Your task to perform on an android device: open app "Viber Messenger" (install if not already installed), go to login, and select forgot password Image 0: 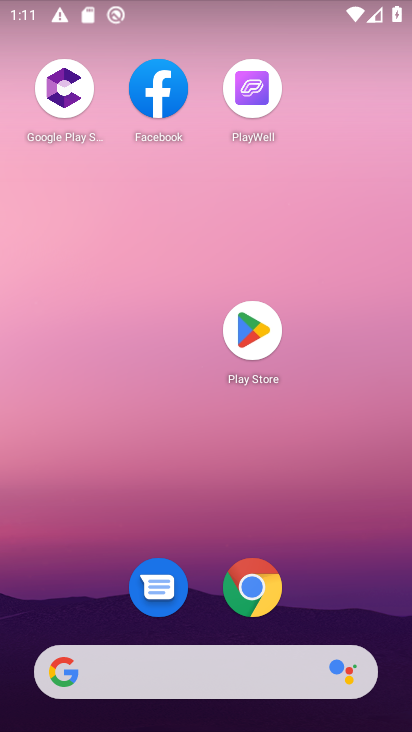
Step 0: press home button
Your task to perform on an android device: open app "Viber Messenger" (install if not already installed), go to login, and select forgot password Image 1: 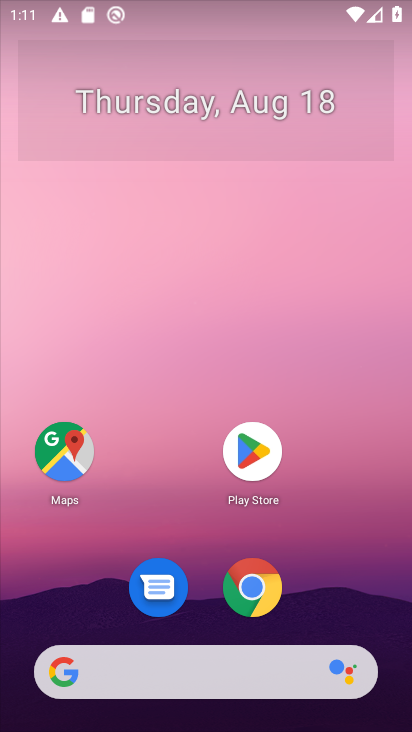
Step 1: click (238, 456)
Your task to perform on an android device: open app "Viber Messenger" (install if not already installed), go to login, and select forgot password Image 2: 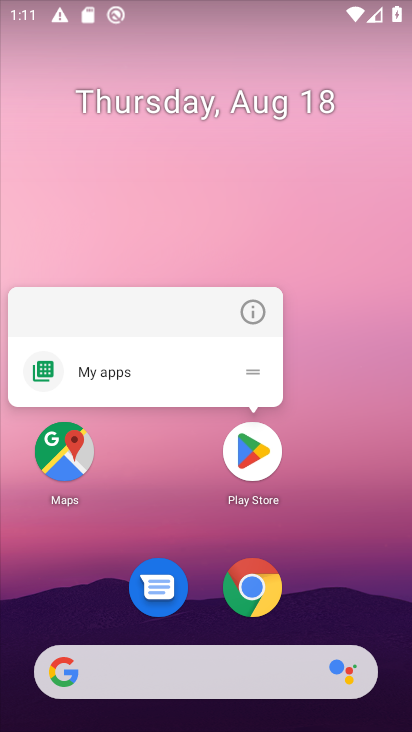
Step 2: click (253, 455)
Your task to perform on an android device: open app "Viber Messenger" (install if not already installed), go to login, and select forgot password Image 3: 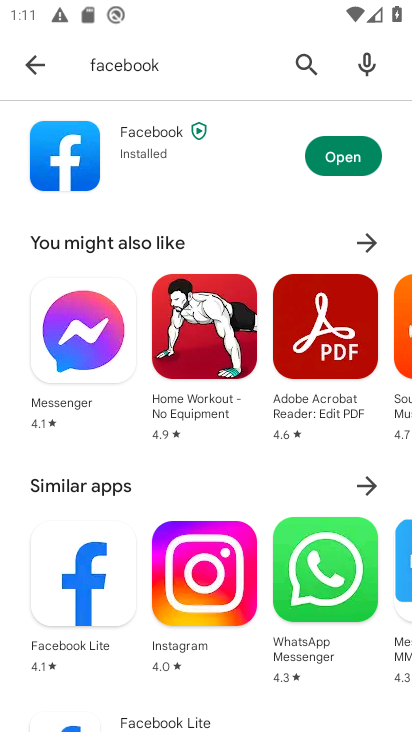
Step 3: click (295, 67)
Your task to perform on an android device: open app "Viber Messenger" (install if not already installed), go to login, and select forgot password Image 4: 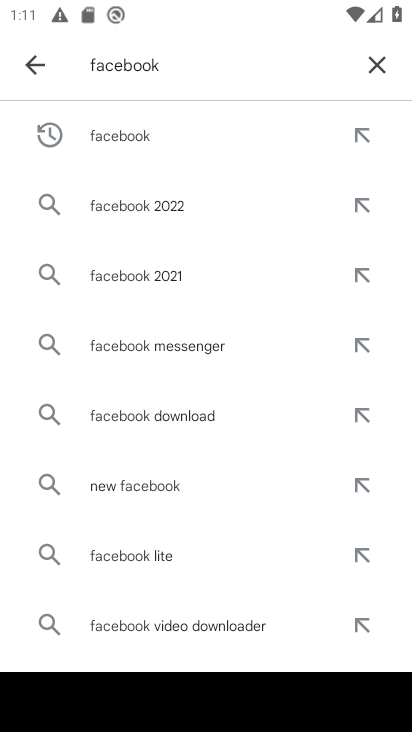
Step 4: click (377, 57)
Your task to perform on an android device: open app "Viber Messenger" (install if not already installed), go to login, and select forgot password Image 5: 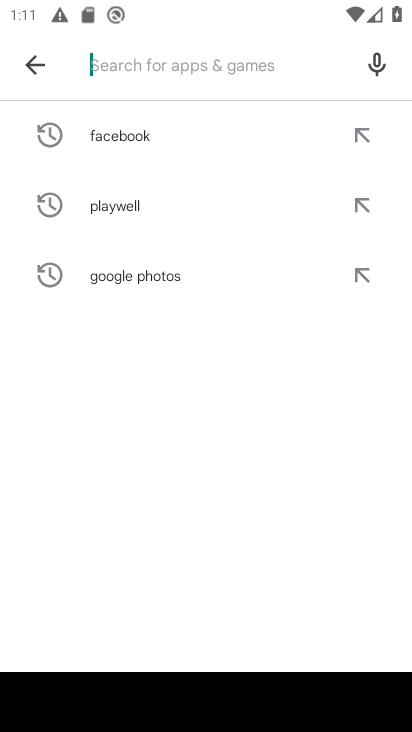
Step 5: type "Viber Messenger"
Your task to perform on an android device: open app "Viber Messenger" (install if not already installed), go to login, and select forgot password Image 6: 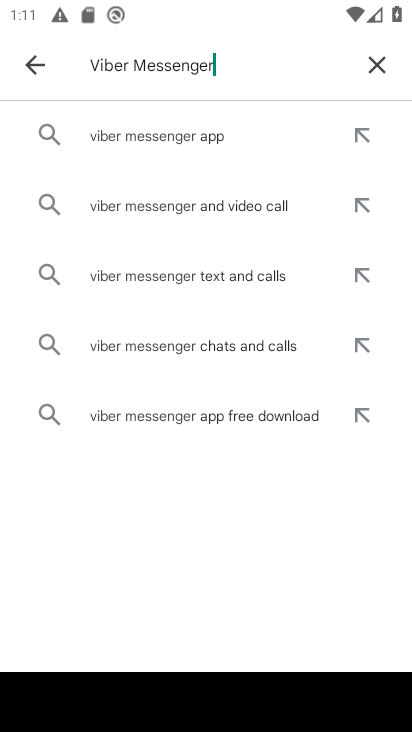
Step 6: click (175, 134)
Your task to perform on an android device: open app "Viber Messenger" (install if not already installed), go to login, and select forgot password Image 7: 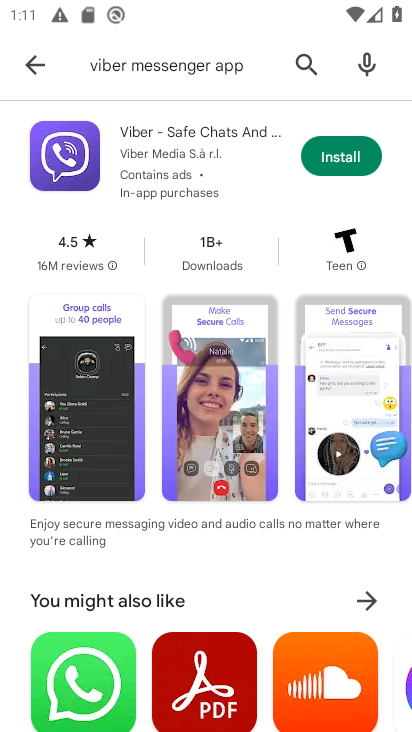
Step 7: click (355, 162)
Your task to perform on an android device: open app "Viber Messenger" (install if not already installed), go to login, and select forgot password Image 8: 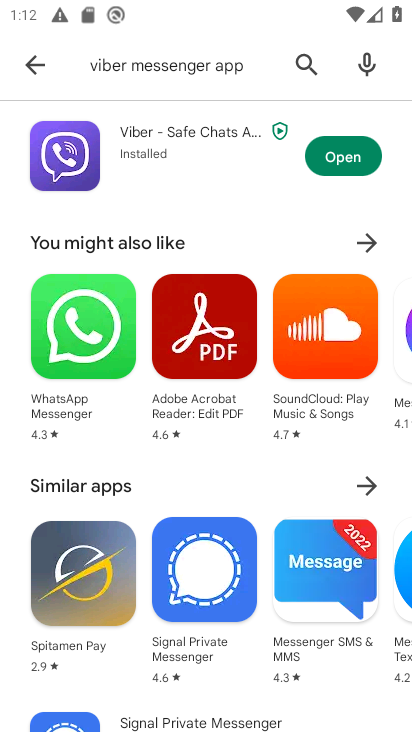
Step 8: click (330, 163)
Your task to perform on an android device: open app "Viber Messenger" (install if not already installed), go to login, and select forgot password Image 9: 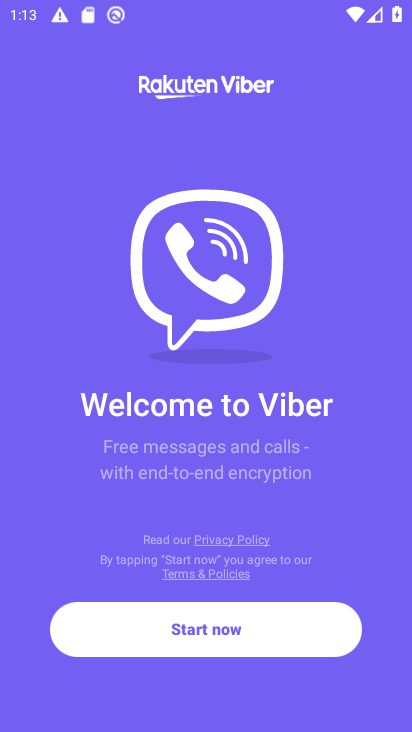
Step 9: click (235, 638)
Your task to perform on an android device: open app "Viber Messenger" (install if not already installed), go to login, and select forgot password Image 10: 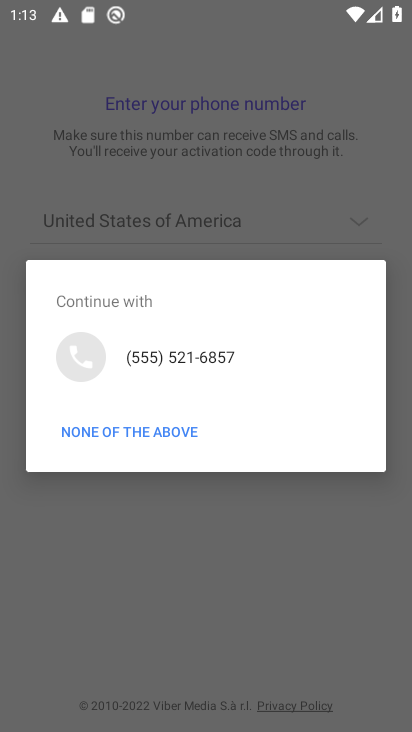
Step 10: task complete